Your task to perform on an android device: Open CNN.com Image 0: 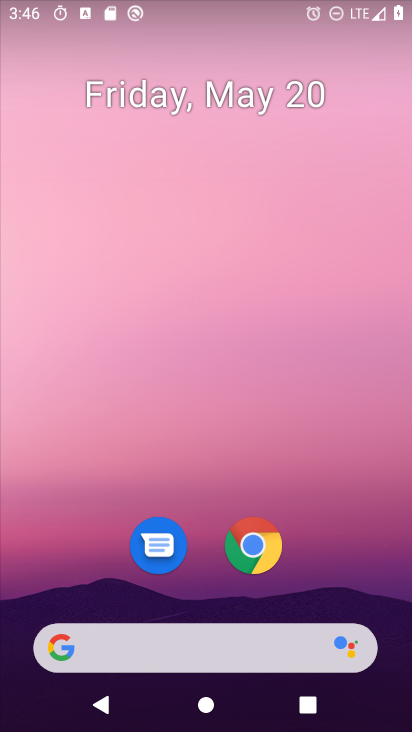
Step 0: drag from (283, 466) to (363, 54)
Your task to perform on an android device: Open CNN.com Image 1: 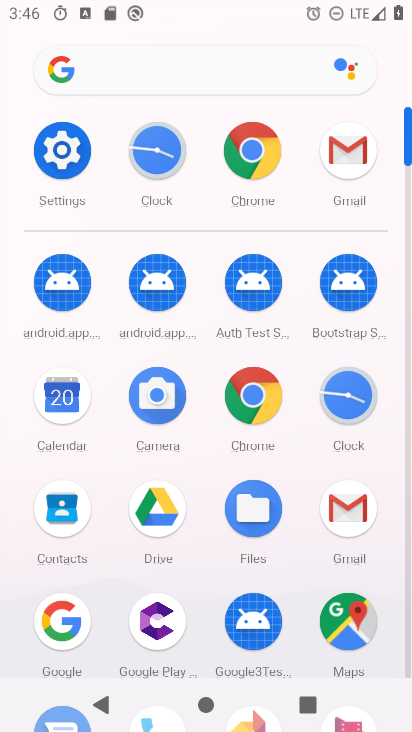
Step 1: click (249, 407)
Your task to perform on an android device: Open CNN.com Image 2: 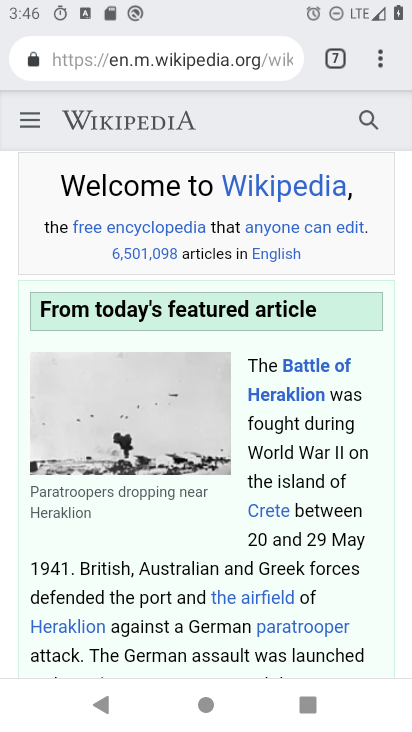
Step 2: click (224, 54)
Your task to perform on an android device: Open CNN.com Image 3: 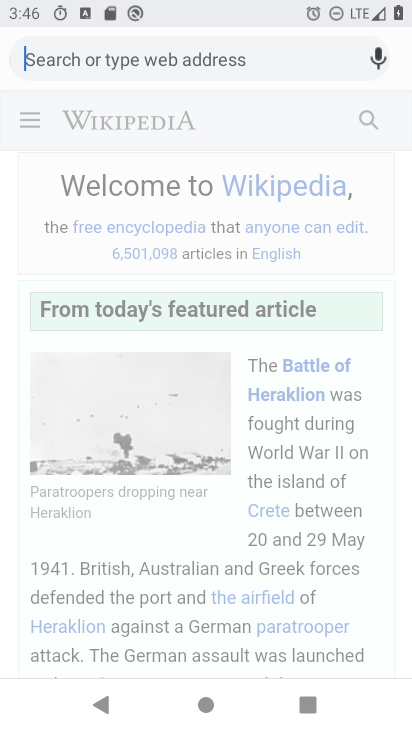
Step 3: click (224, 54)
Your task to perform on an android device: Open CNN.com Image 4: 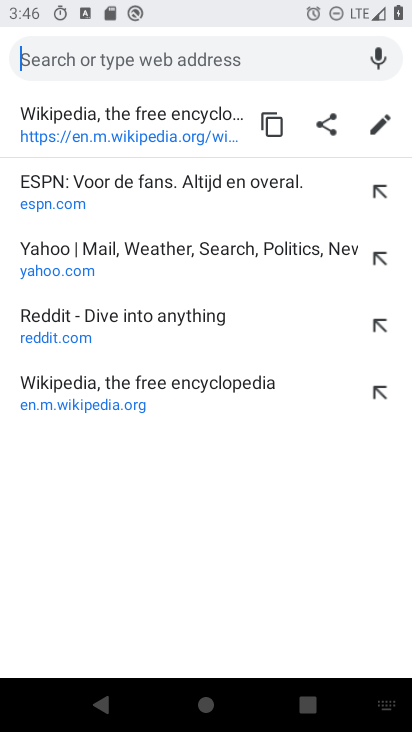
Step 4: type "cnn.com"
Your task to perform on an android device: Open CNN.com Image 5: 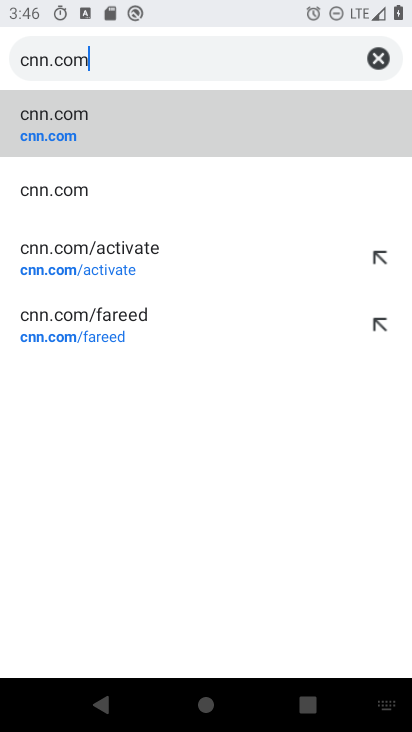
Step 5: click (116, 132)
Your task to perform on an android device: Open CNN.com Image 6: 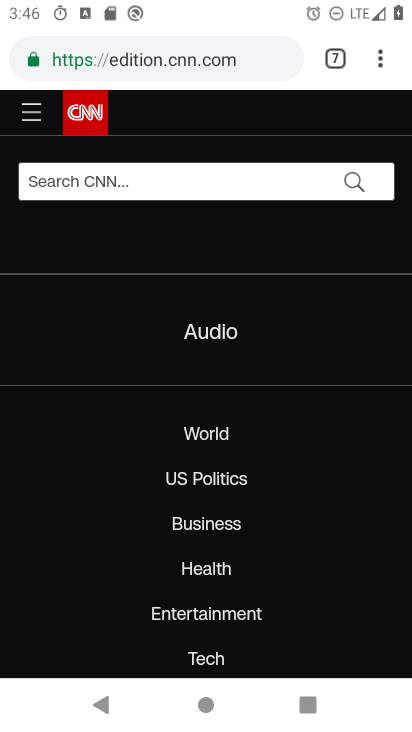
Step 6: task complete